Your task to perform on an android device: set an alarm Image 0: 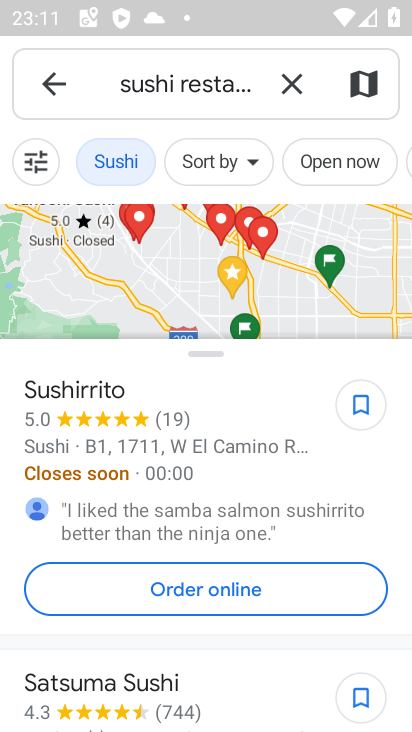
Step 0: press home button
Your task to perform on an android device: set an alarm Image 1: 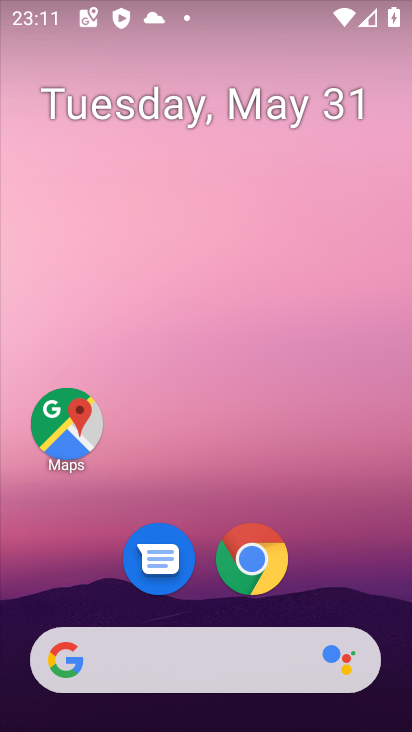
Step 1: drag from (334, 510) to (269, 89)
Your task to perform on an android device: set an alarm Image 2: 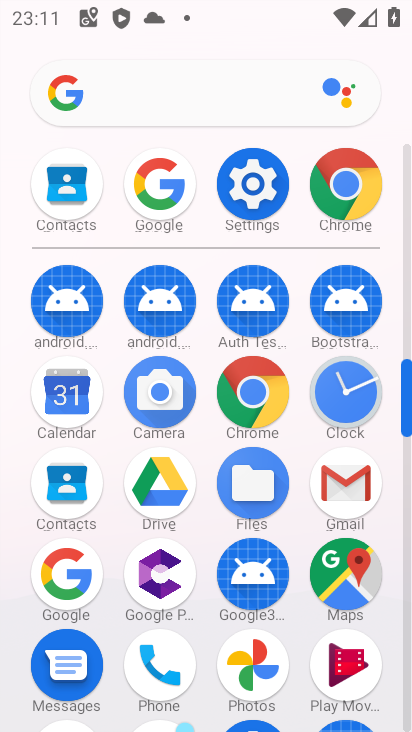
Step 2: click (339, 392)
Your task to perform on an android device: set an alarm Image 3: 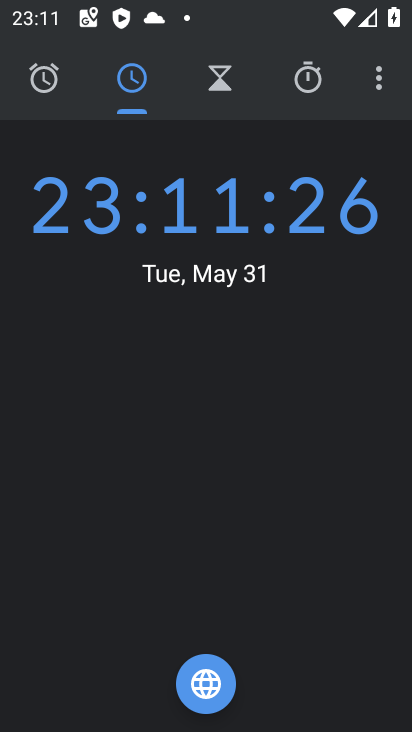
Step 3: click (45, 87)
Your task to perform on an android device: set an alarm Image 4: 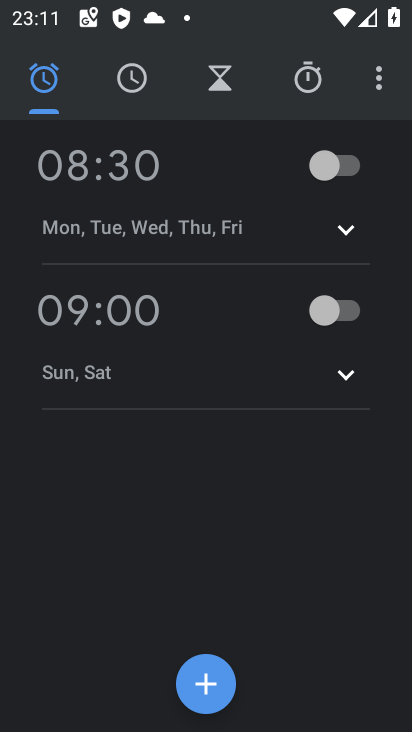
Step 4: click (337, 169)
Your task to perform on an android device: set an alarm Image 5: 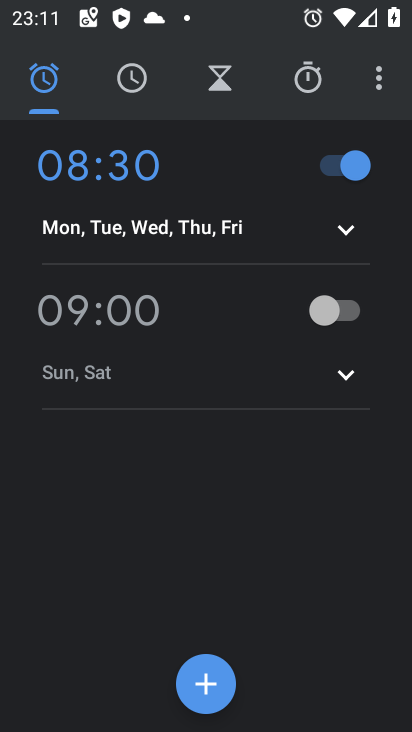
Step 5: task complete